Your task to perform on an android device: Open Android settings Image 0: 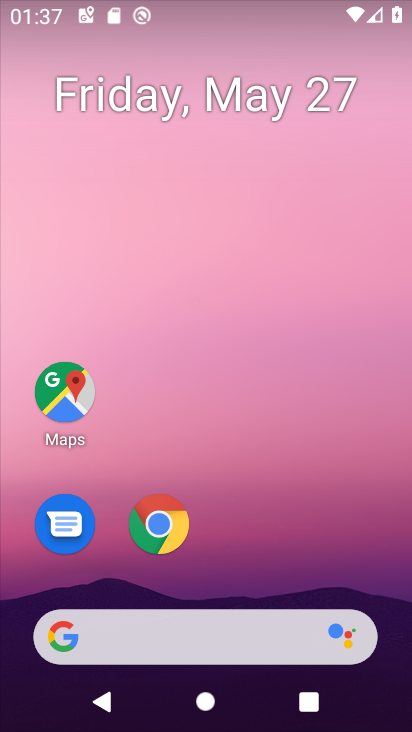
Step 0: drag from (224, 546) to (291, 23)
Your task to perform on an android device: Open Android settings Image 1: 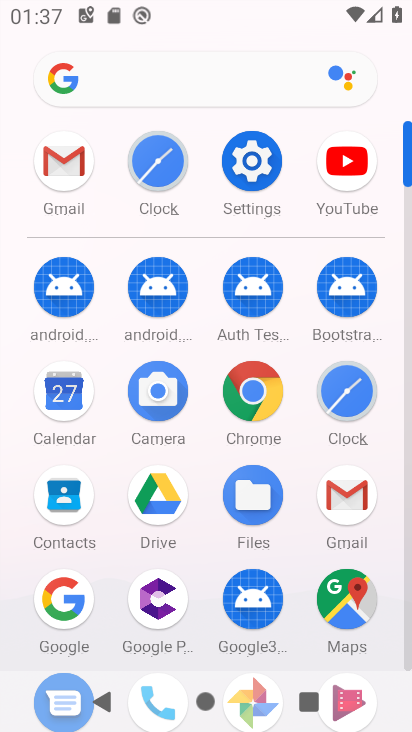
Step 1: click (257, 146)
Your task to perform on an android device: Open Android settings Image 2: 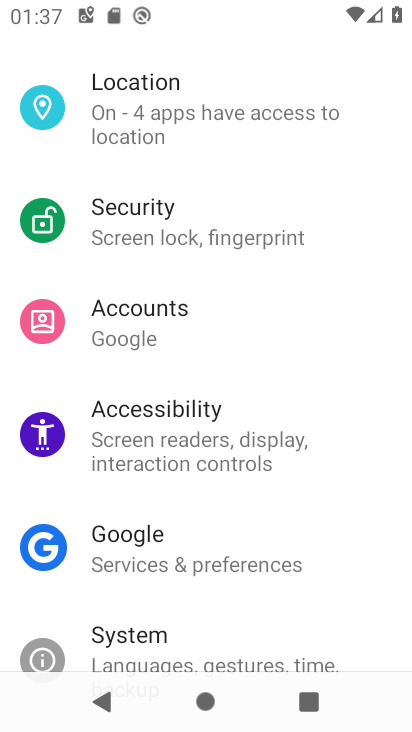
Step 2: drag from (264, 608) to (259, 317)
Your task to perform on an android device: Open Android settings Image 3: 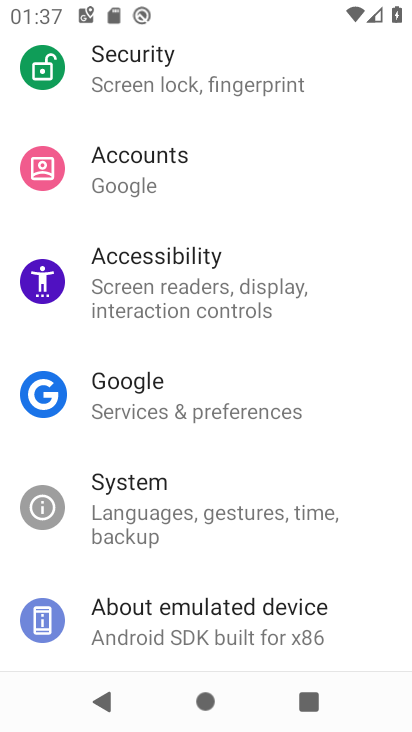
Step 3: click (250, 615)
Your task to perform on an android device: Open Android settings Image 4: 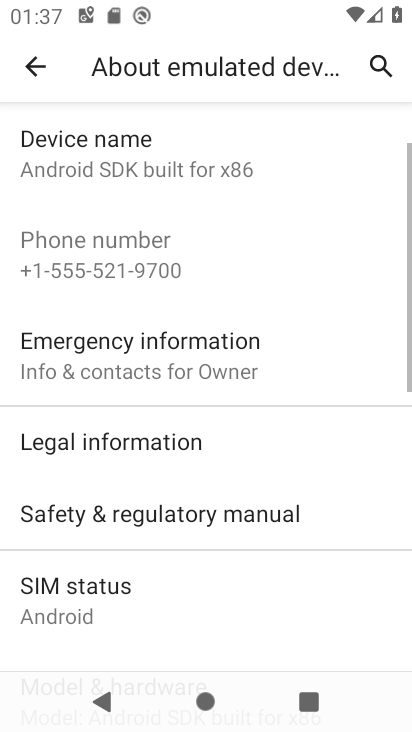
Step 4: task complete